Your task to perform on an android device: open device folders in google photos Image 0: 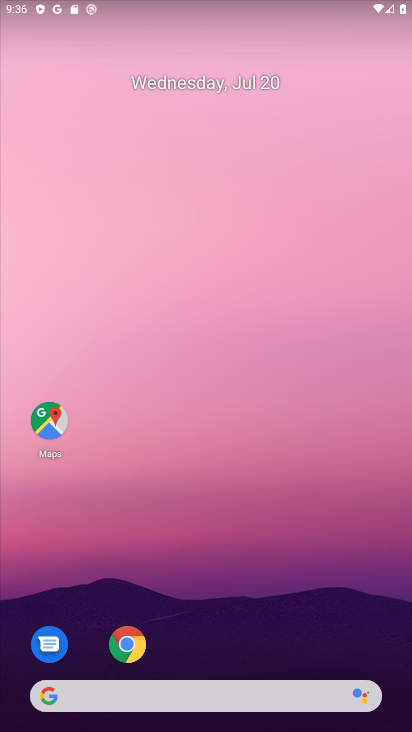
Step 0: drag from (234, 606) to (204, 206)
Your task to perform on an android device: open device folders in google photos Image 1: 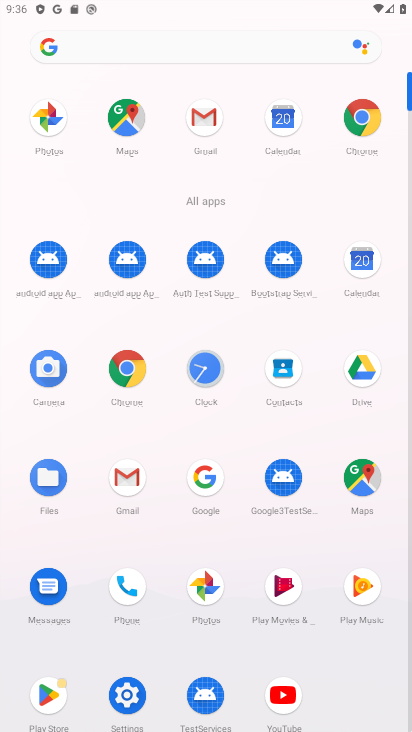
Step 1: click (43, 123)
Your task to perform on an android device: open device folders in google photos Image 2: 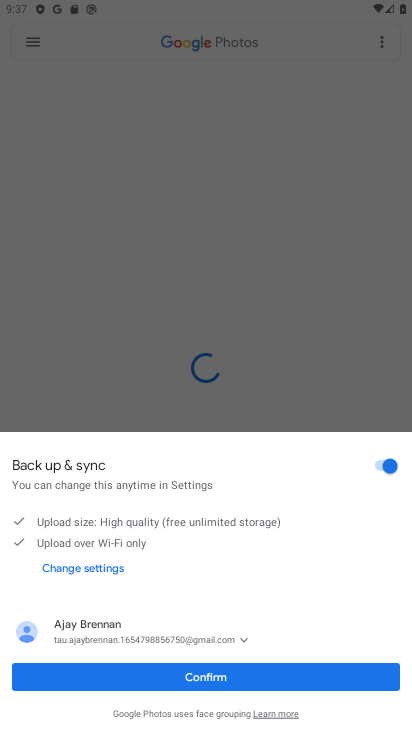
Step 2: click (216, 673)
Your task to perform on an android device: open device folders in google photos Image 3: 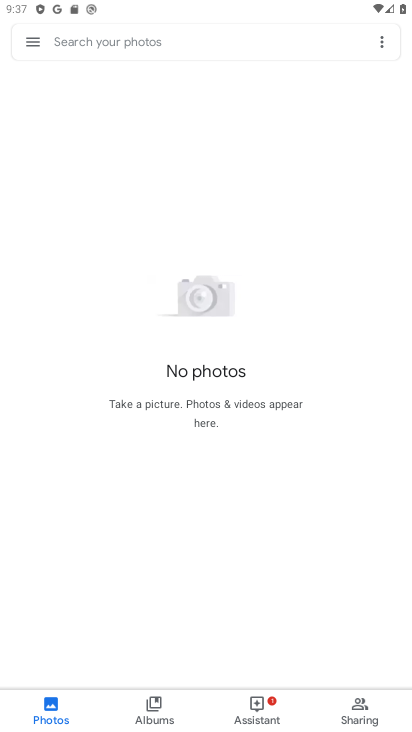
Step 3: click (33, 40)
Your task to perform on an android device: open device folders in google photos Image 4: 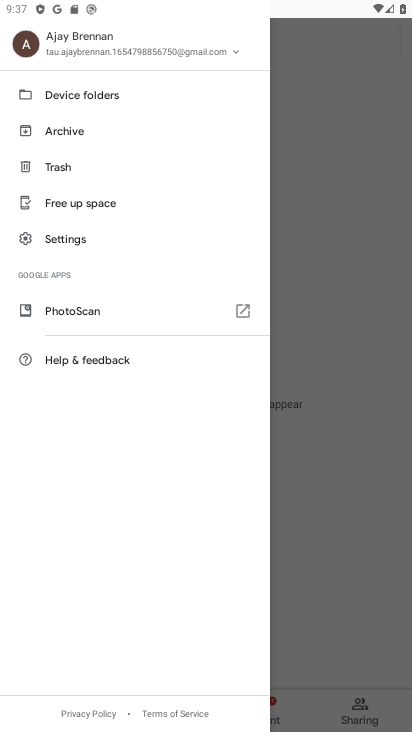
Step 4: click (58, 85)
Your task to perform on an android device: open device folders in google photos Image 5: 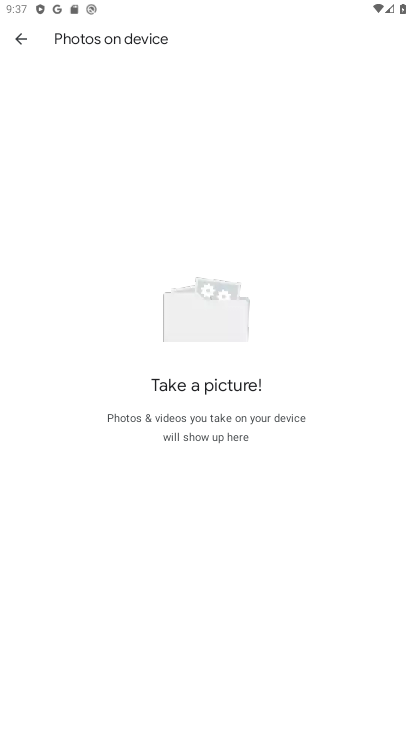
Step 5: task complete